Your task to perform on an android device: turn off notifications settings in the gmail app Image 0: 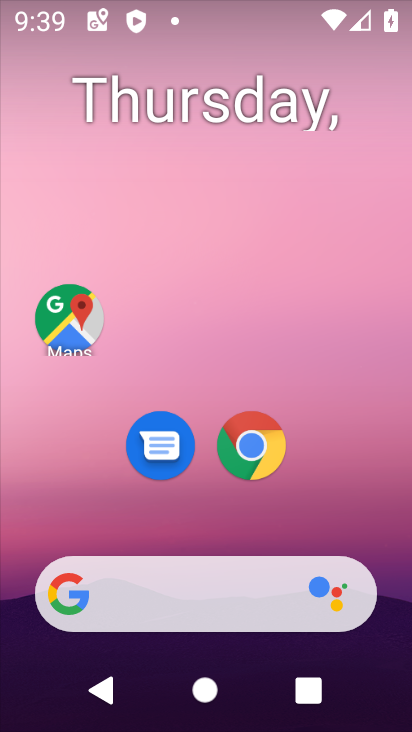
Step 0: drag from (215, 555) to (378, 58)
Your task to perform on an android device: turn off notifications settings in the gmail app Image 1: 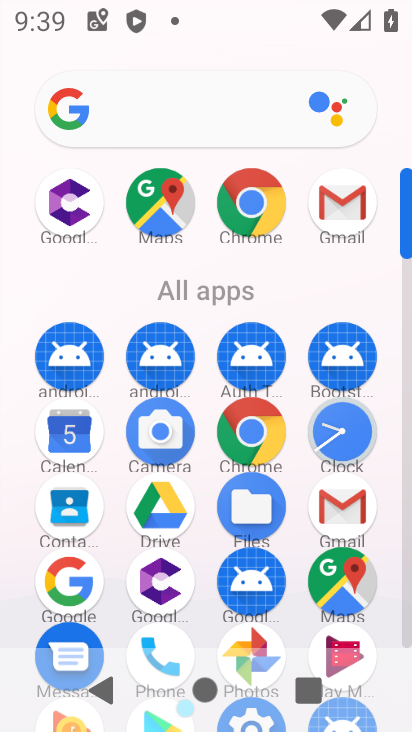
Step 1: click (331, 209)
Your task to perform on an android device: turn off notifications settings in the gmail app Image 2: 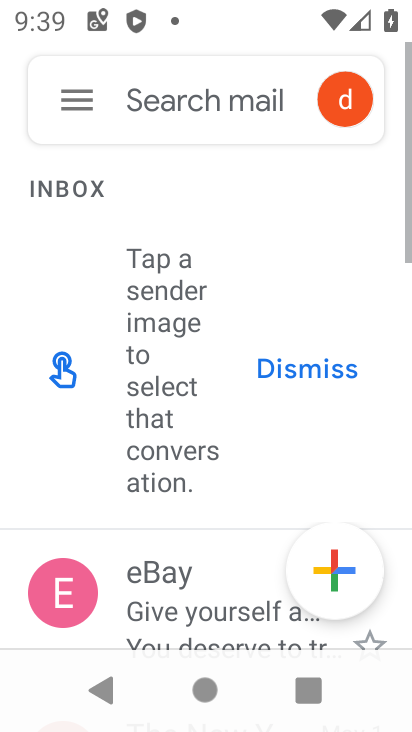
Step 2: click (86, 107)
Your task to perform on an android device: turn off notifications settings in the gmail app Image 3: 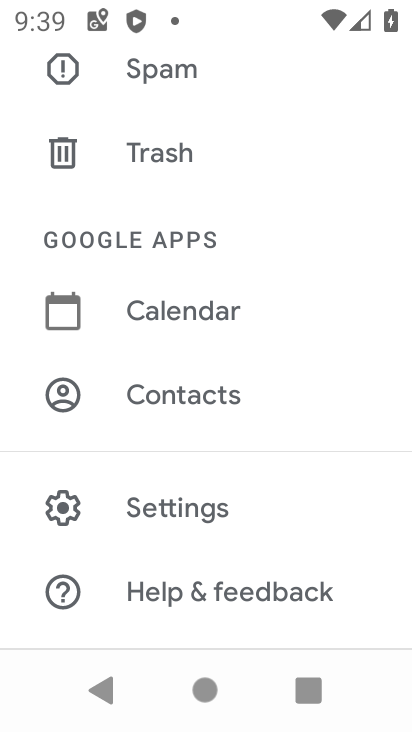
Step 3: click (174, 511)
Your task to perform on an android device: turn off notifications settings in the gmail app Image 4: 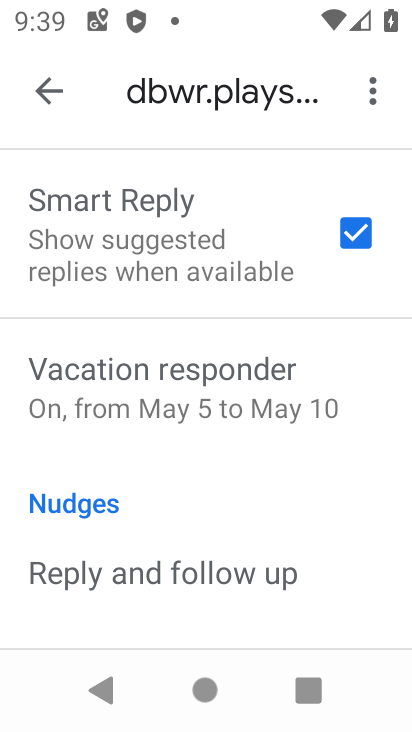
Step 4: click (50, 87)
Your task to perform on an android device: turn off notifications settings in the gmail app Image 5: 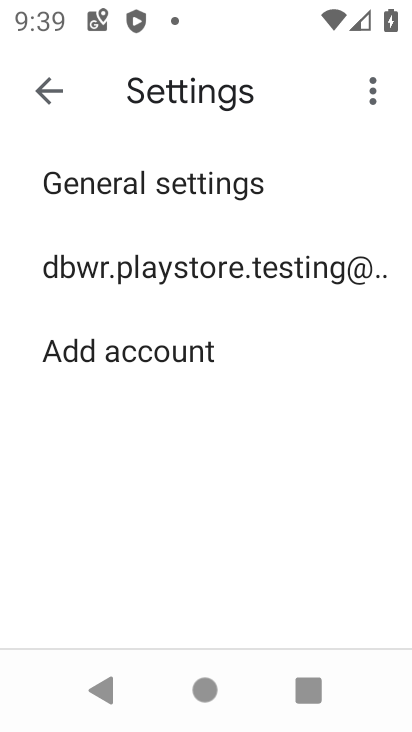
Step 5: click (150, 174)
Your task to perform on an android device: turn off notifications settings in the gmail app Image 6: 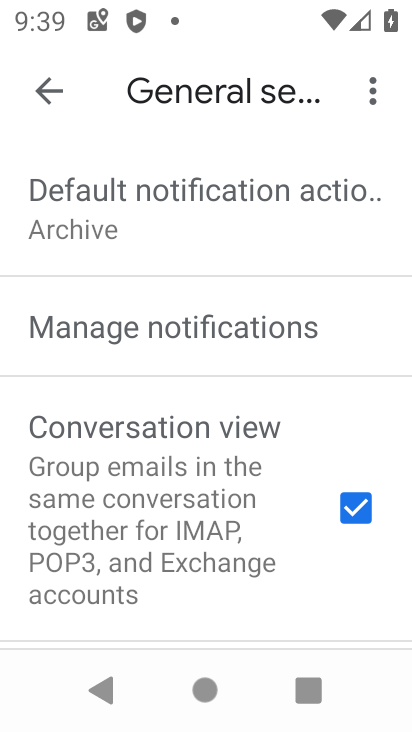
Step 6: click (144, 330)
Your task to perform on an android device: turn off notifications settings in the gmail app Image 7: 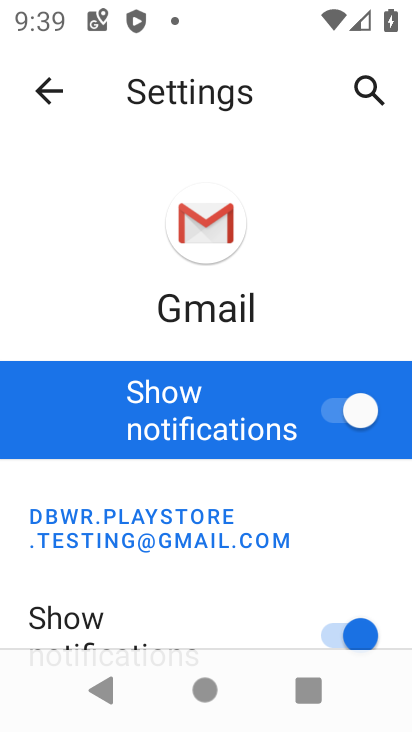
Step 7: click (340, 409)
Your task to perform on an android device: turn off notifications settings in the gmail app Image 8: 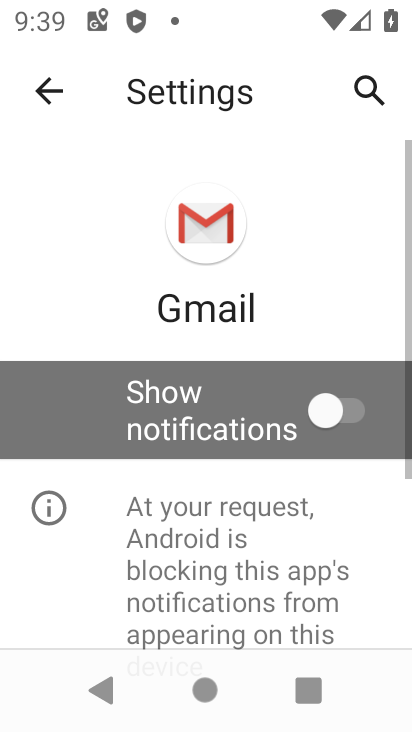
Step 8: task complete